Your task to perform on an android device: Open Wikipedia Image 0: 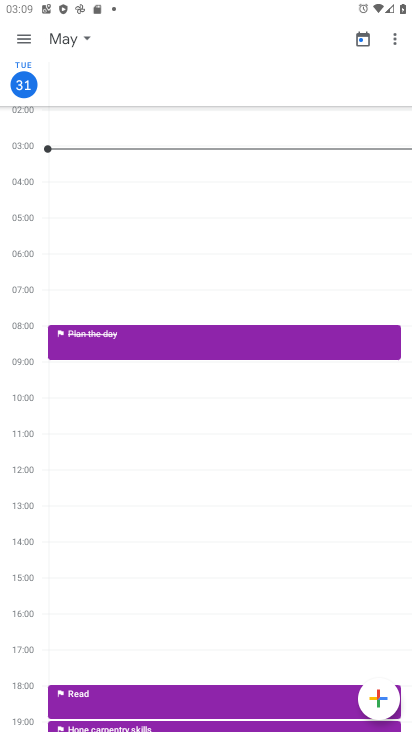
Step 0: press home button
Your task to perform on an android device: Open Wikipedia Image 1: 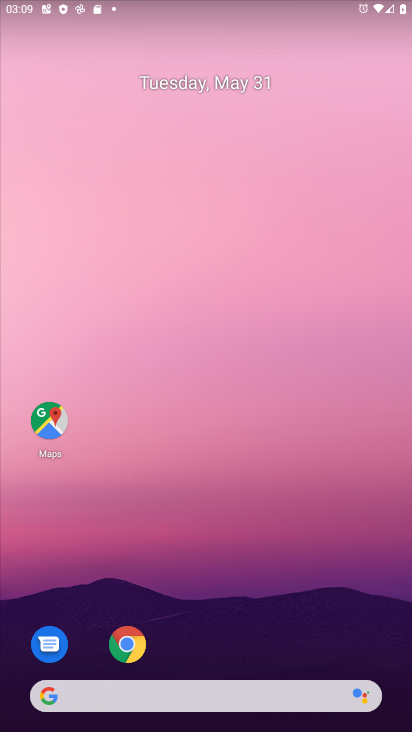
Step 1: click (129, 643)
Your task to perform on an android device: Open Wikipedia Image 2: 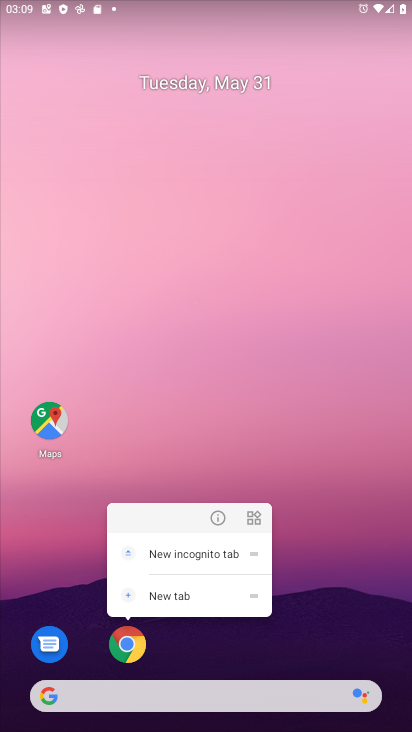
Step 2: click (126, 643)
Your task to perform on an android device: Open Wikipedia Image 3: 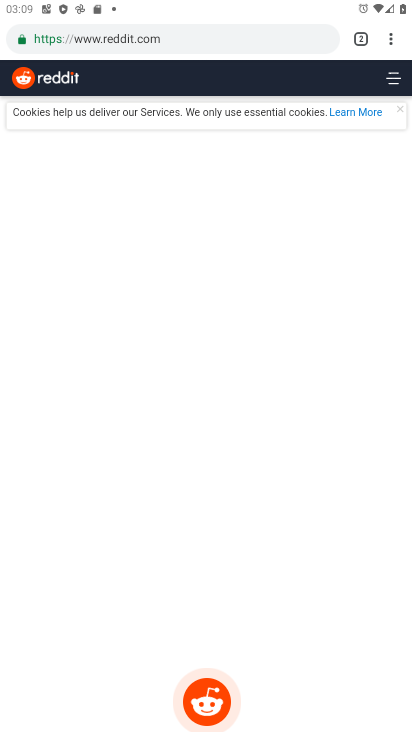
Step 3: click (151, 36)
Your task to perform on an android device: Open Wikipedia Image 4: 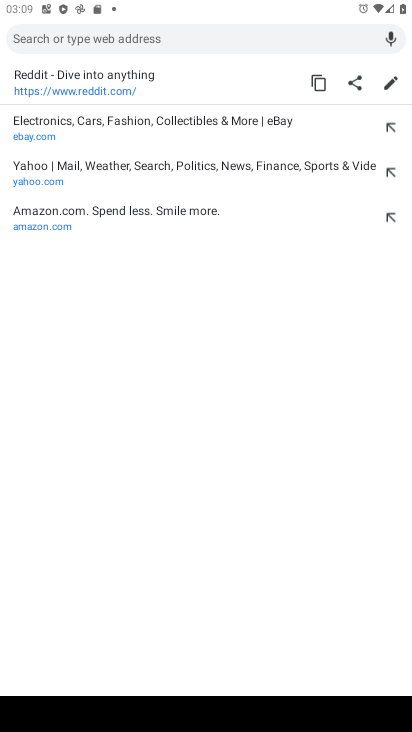
Step 4: type "wikipedia"
Your task to perform on an android device: Open Wikipedia Image 5: 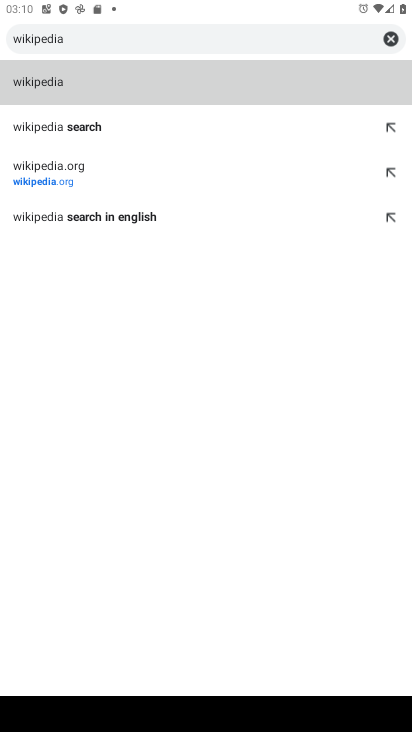
Step 5: click (61, 185)
Your task to perform on an android device: Open Wikipedia Image 6: 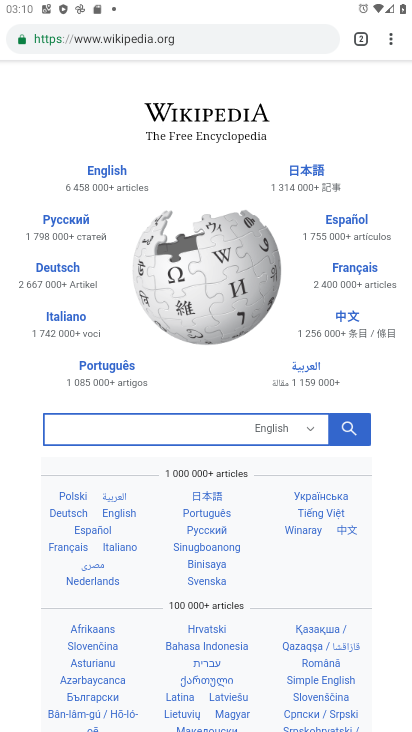
Step 6: task complete